Your task to perform on an android device: stop showing notifications on the lock screen Image 0: 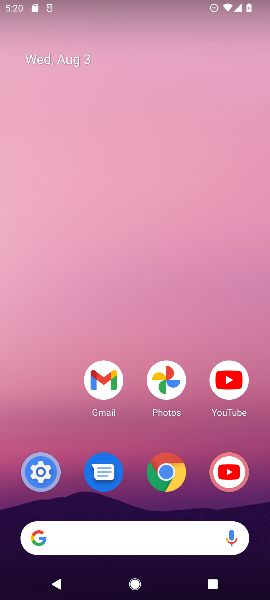
Step 0: drag from (197, 500) to (51, 21)
Your task to perform on an android device: stop showing notifications on the lock screen Image 1: 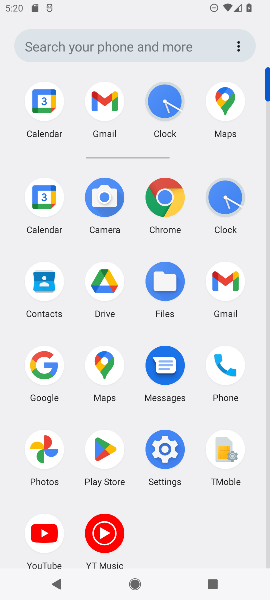
Step 1: click (156, 459)
Your task to perform on an android device: stop showing notifications on the lock screen Image 2: 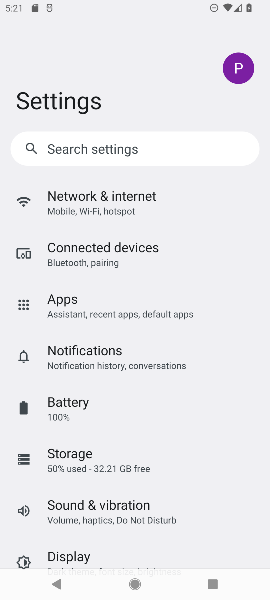
Step 2: click (96, 363)
Your task to perform on an android device: stop showing notifications on the lock screen Image 3: 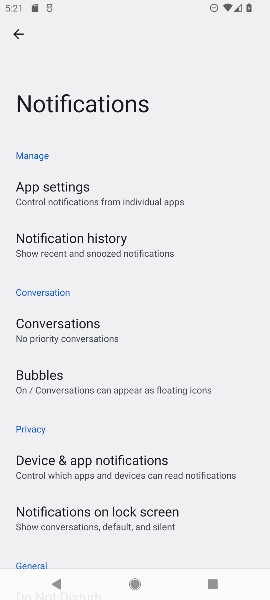
Step 3: drag from (129, 506) to (103, 330)
Your task to perform on an android device: stop showing notifications on the lock screen Image 4: 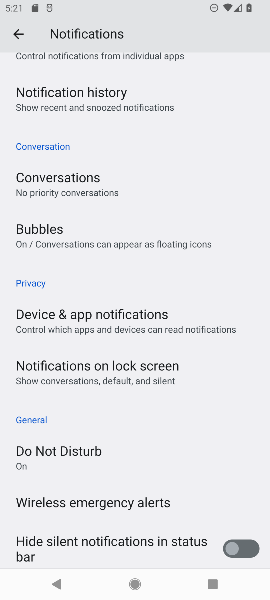
Step 4: click (112, 365)
Your task to perform on an android device: stop showing notifications on the lock screen Image 5: 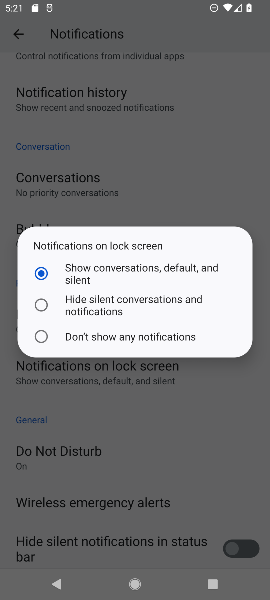
Step 5: click (105, 335)
Your task to perform on an android device: stop showing notifications on the lock screen Image 6: 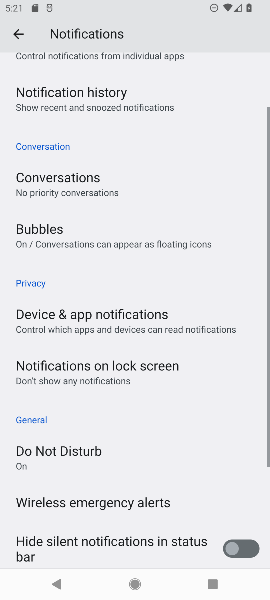
Step 6: task complete